Your task to perform on an android device: What's on my calendar tomorrow? Image 0: 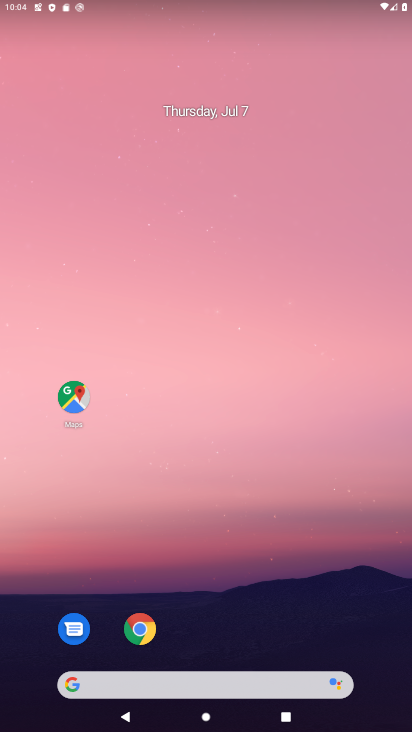
Step 0: press home button
Your task to perform on an android device: What's on my calendar tomorrow? Image 1: 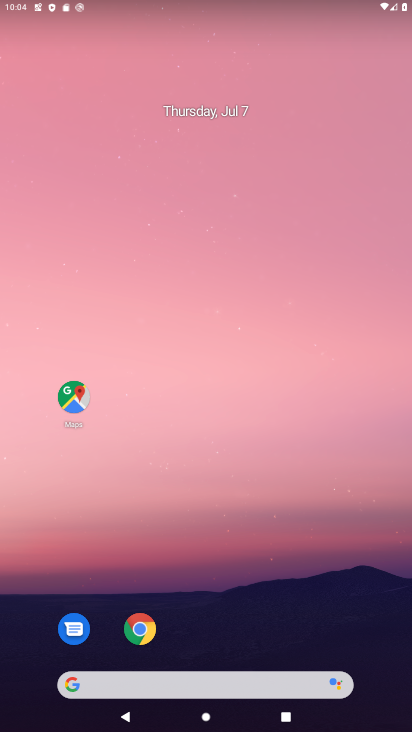
Step 1: drag from (300, 448) to (295, 0)
Your task to perform on an android device: What's on my calendar tomorrow? Image 2: 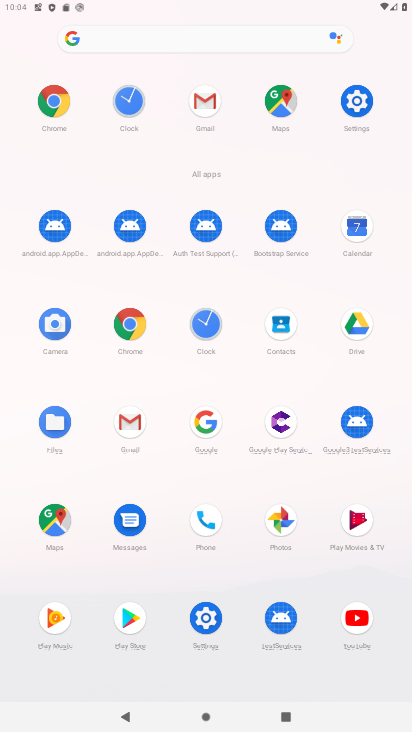
Step 2: click (351, 233)
Your task to perform on an android device: What's on my calendar tomorrow? Image 3: 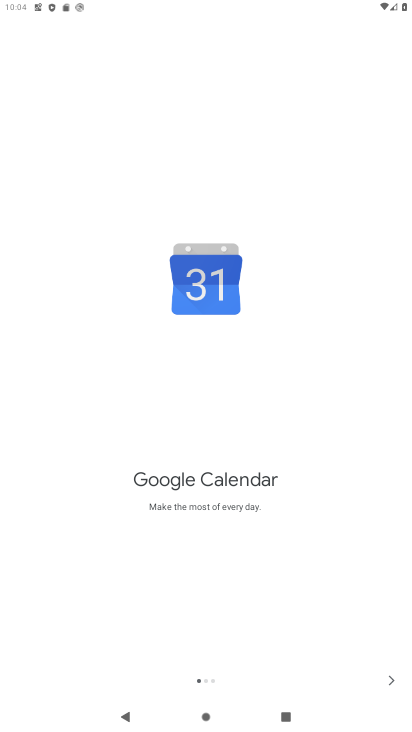
Step 3: click (393, 680)
Your task to perform on an android device: What's on my calendar tomorrow? Image 4: 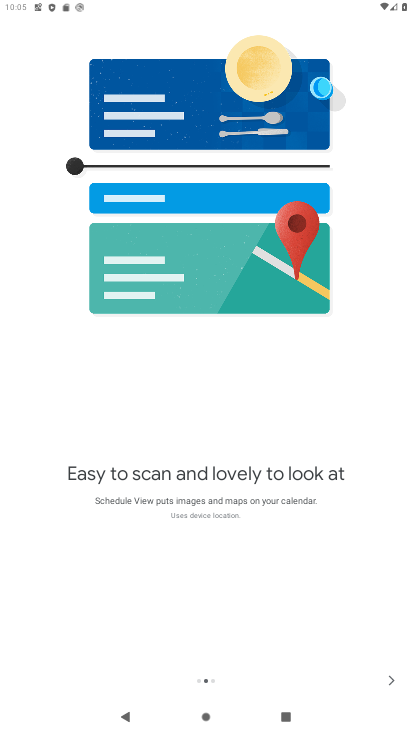
Step 4: click (393, 680)
Your task to perform on an android device: What's on my calendar tomorrow? Image 5: 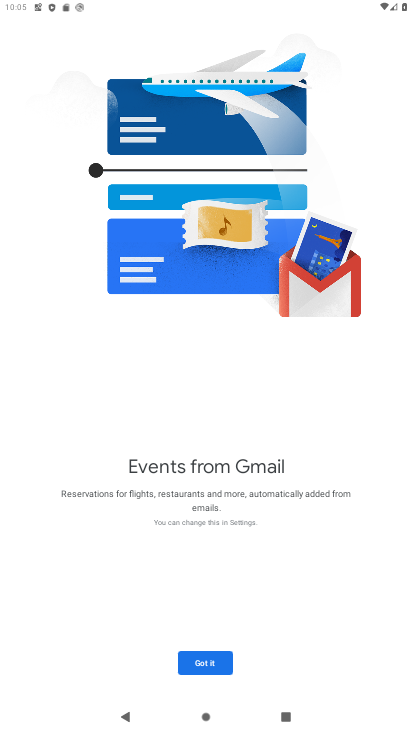
Step 5: click (192, 660)
Your task to perform on an android device: What's on my calendar tomorrow? Image 6: 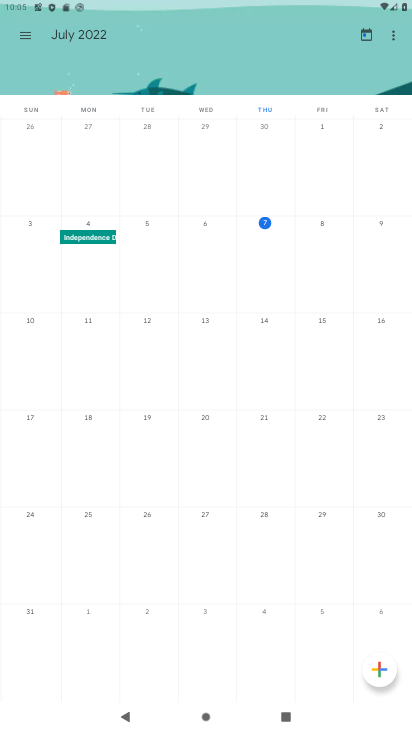
Step 6: click (318, 228)
Your task to perform on an android device: What's on my calendar tomorrow? Image 7: 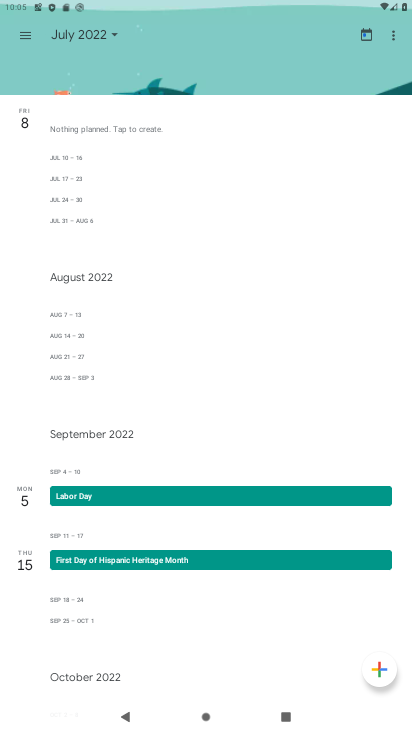
Step 7: task complete